Your task to perform on an android device: Open sound settings Image 0: 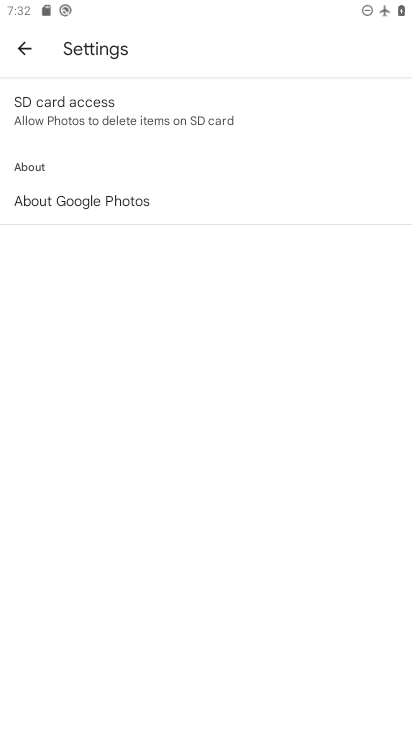
Step 0: press home button
Your task to perform on an android device: Open sound settings Image 1: 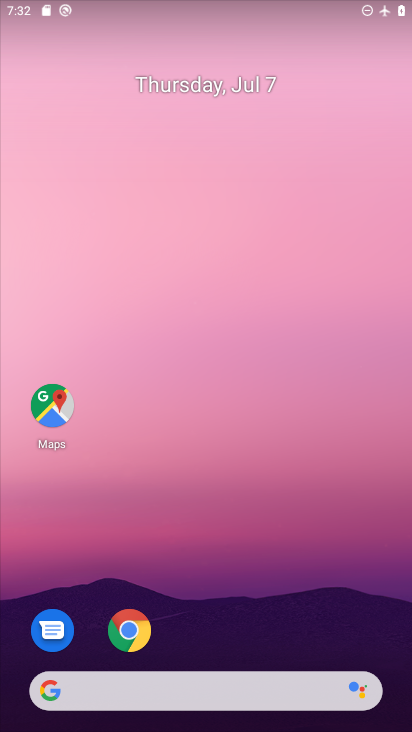
Step 1: drag from (218, 543) to (139, 24)
Your task to perform on an android device: Open sound settings Image 2: 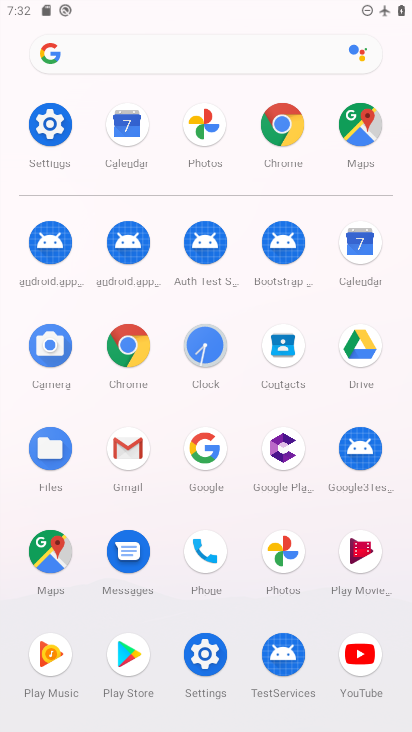
Step 2: click (47, 121)
Your task to perform on an android device: Open sound settings Image 3: 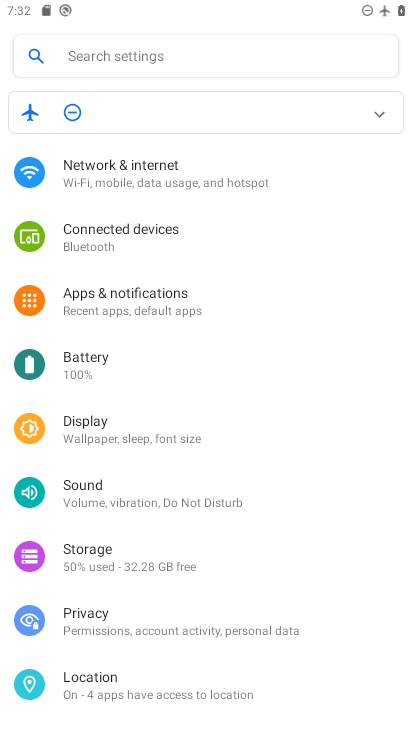
Step 3: click (82, 481)
Your task to perform on an android device: Open sound settings Image 4: 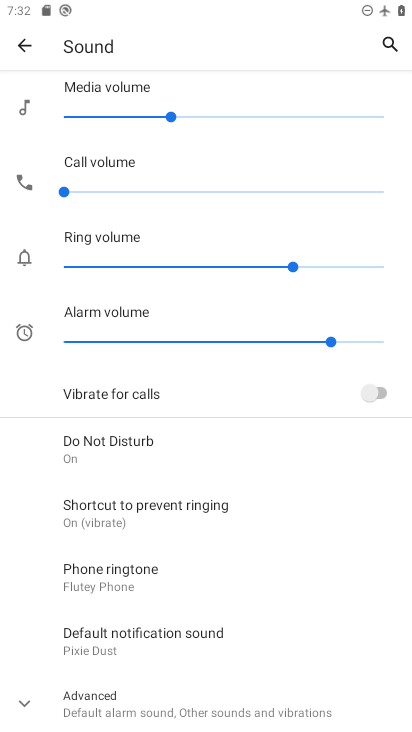
Step 4: task complete